Your task to perform on an android device: delete location history Image 0: 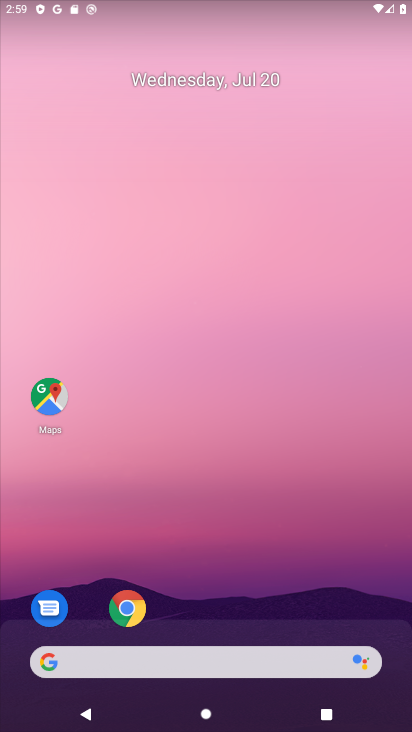
Step 0: drag from (198, 542) to (303, 0)
Your task to perform on an android device: delete location history Image 1: 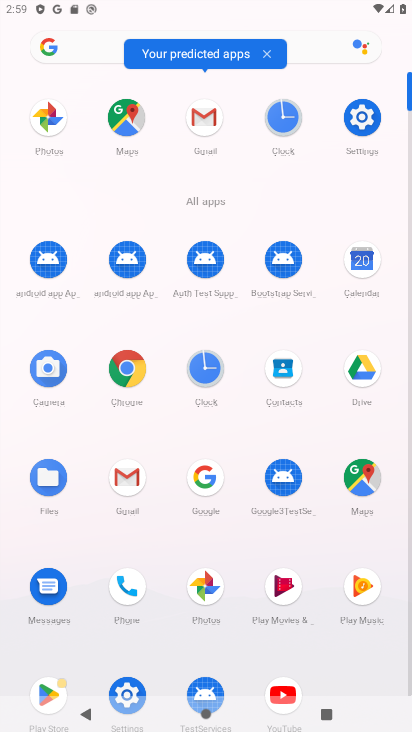
Step 1: click (126, 128)
Your task to perform on an android device: delete location history Image 2: 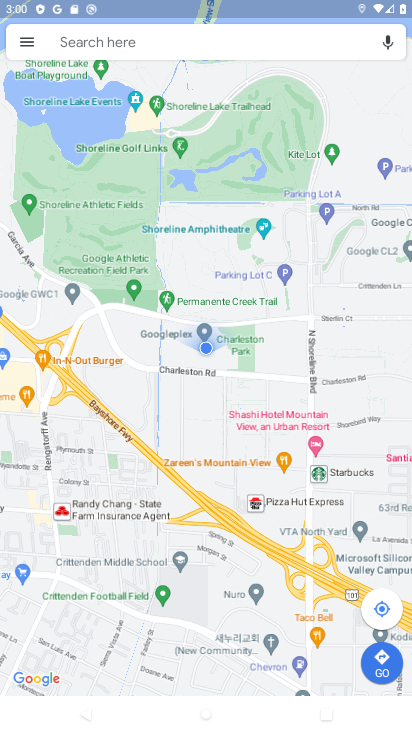
Step 2: click (33, 43)
Your task to perform on an android device: delete location history Image 3: 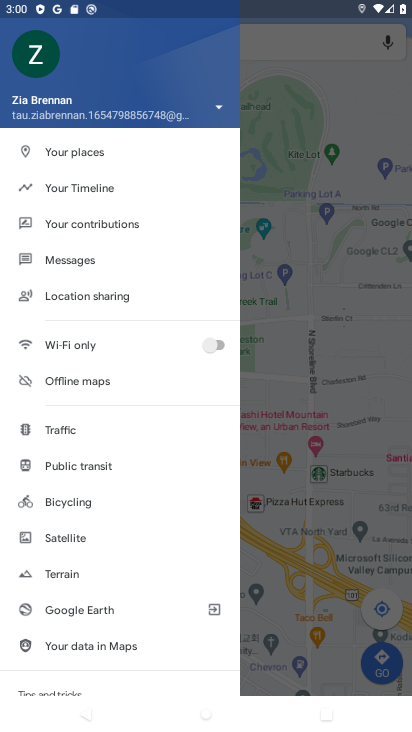
Step 3: drag from (124, 570) to (152, 155)
Your task to perform on an android device: delete location history Image 4: 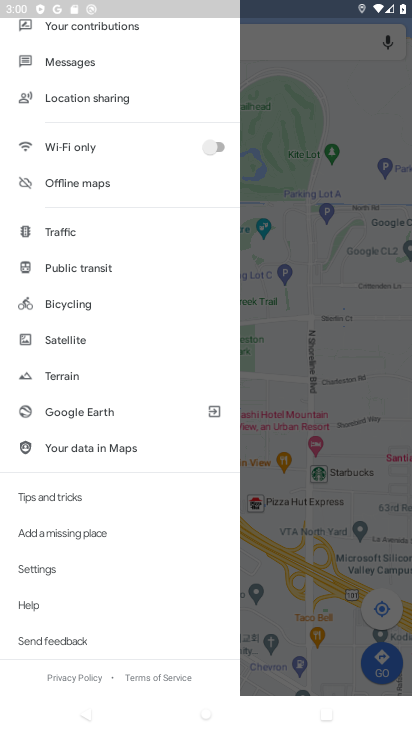
Step 4: drag from (123, 183) to (3, 672)
Your task to perform on an android device: delete location history Image 5: 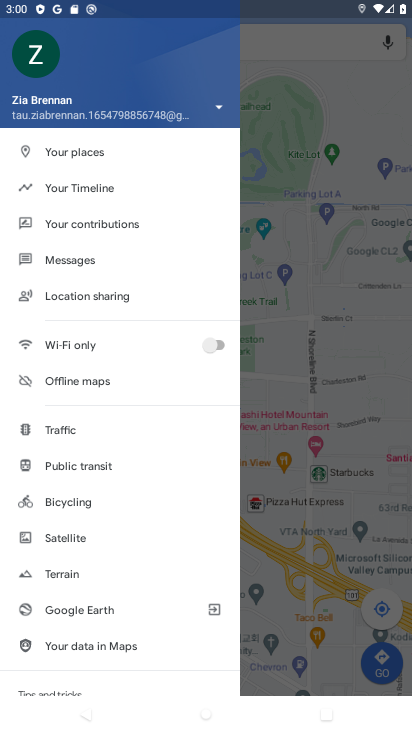
Step 5: click (105, 187)
Your task to perform on an android device: delete location history Image 6: 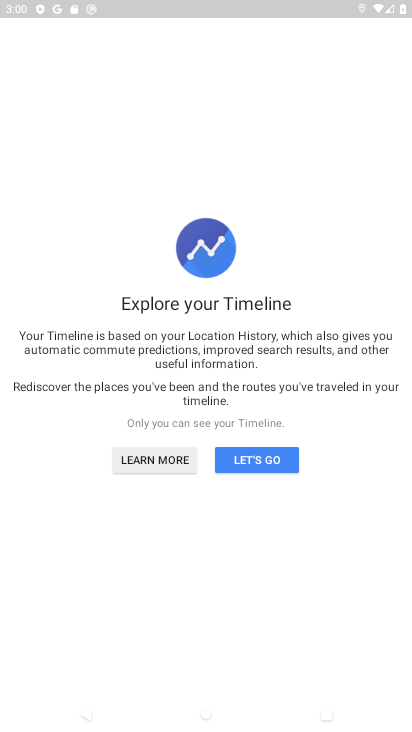
Step 6: click (247, 454)
Your task to perform on an android device: delete location history Image 7: 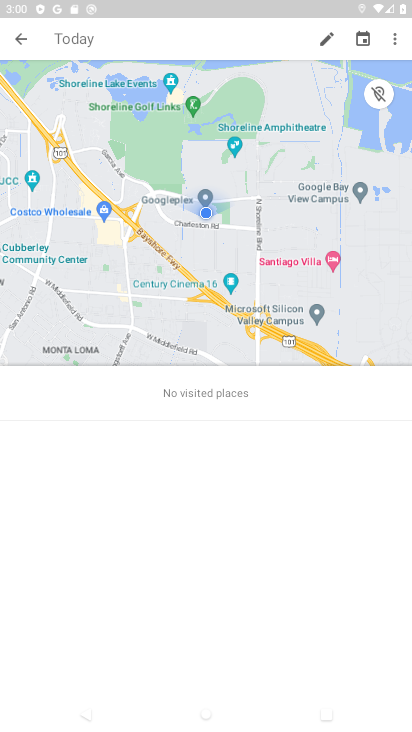
Step 7: click (399, 44)
Your task to perform on an android device: delete location history Image 8: 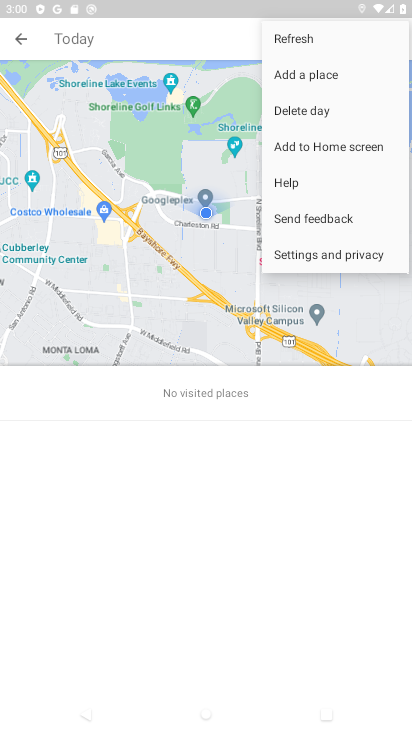
Step 8: click (299, 250)
Your task to perform on an android device: delete location history Image 9: 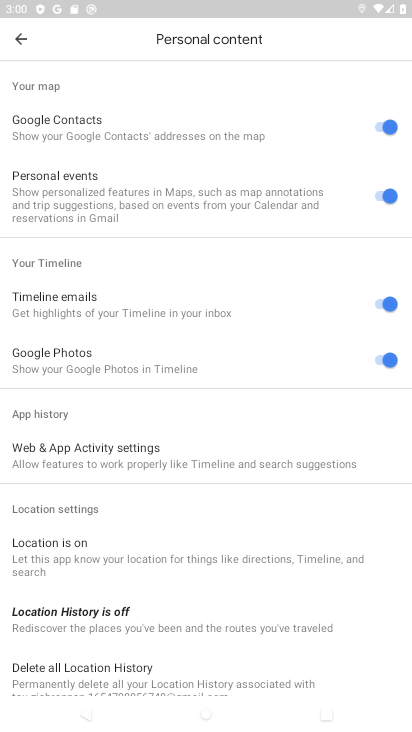
Step 9: drag from (86, 569) to (152, 194)
Your task to perform on an android device: delete location history Image 10: 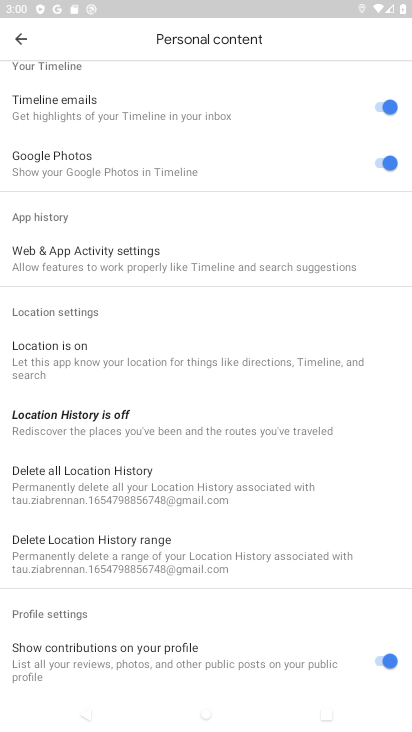
Step 10: click (8, 479)
Your task to perform on an android device: delete location history Image 11: 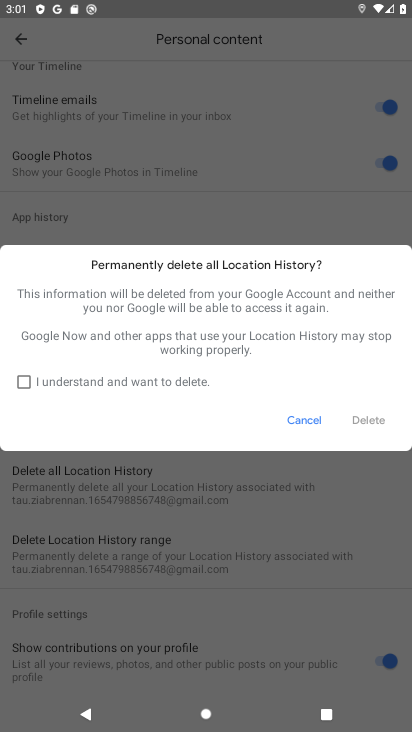
Step 11: click (21, 378)
Your task to perform on an android device: delete location history Image 12: 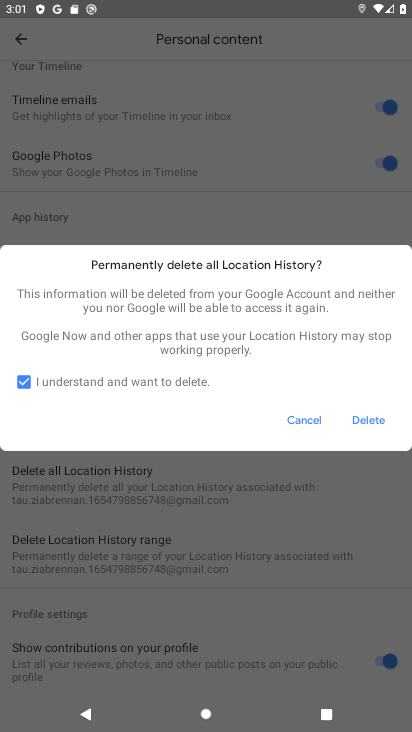
Step 12: click (369, 419)
Your task to perform on an android device: delete location history Image 13: 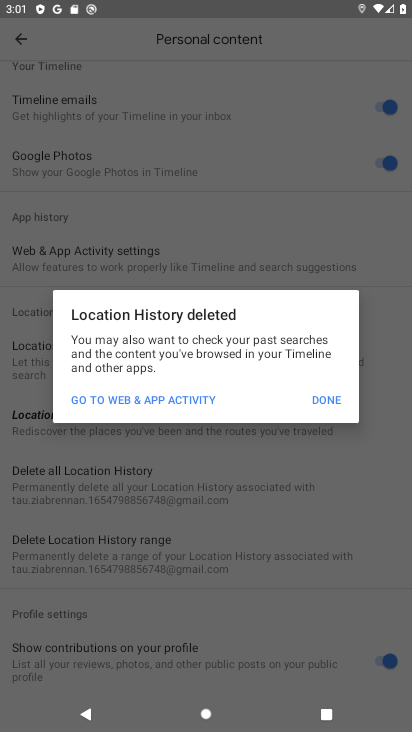
Step 13: click (326, 402)
Your task to perform on an android device: delete location history Image 14: 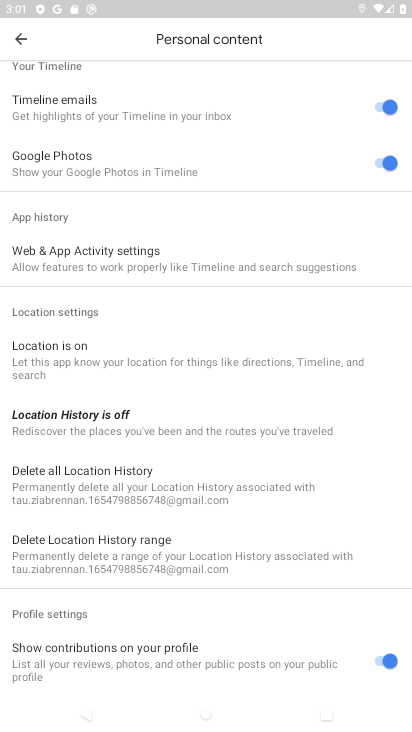
Step 14: task complete